Your task to perform on an android device: manage bookmarks in the chrome app Image 0: 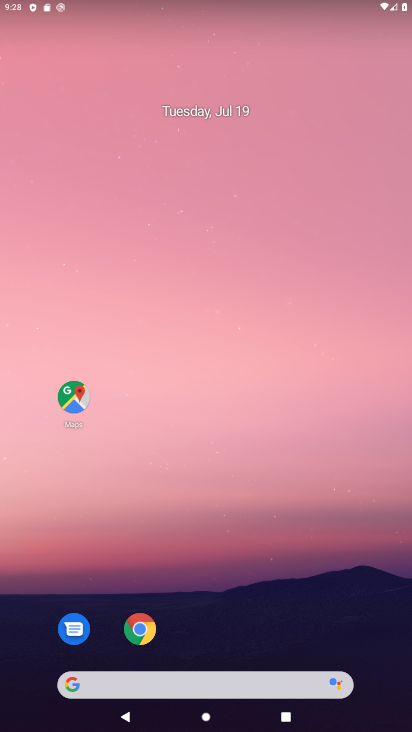
Step 0: press home button
Your task to perform on an android device: manage bookmarks in the chrome app Image 1: 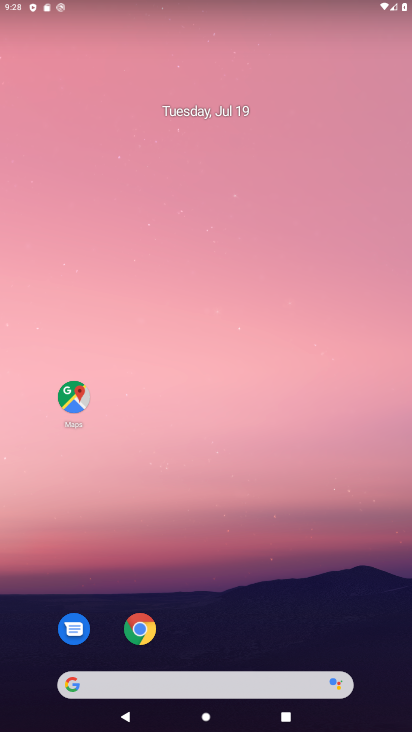
Step 1: press home button
Your task to perform on an android device: manage bookmarks in the chrome app Image 2: 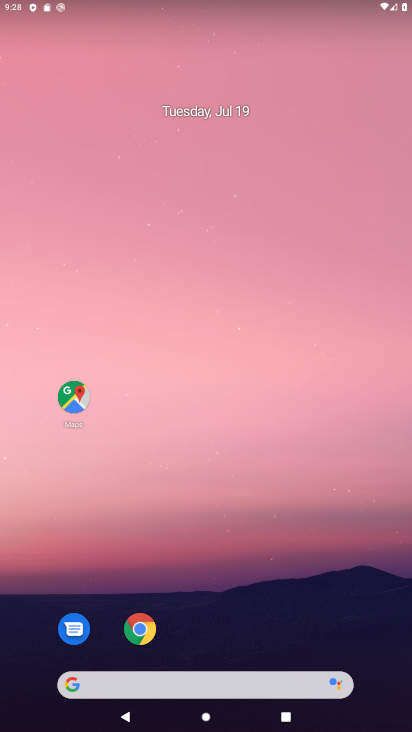
Step 2: click (135, 621)
Your task to perform on an android device: manage bookmarks in the chrome app Image 3: 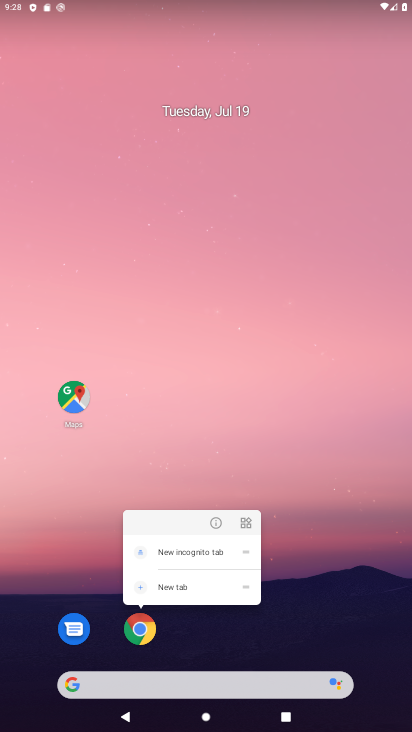
Step 3: click (142, 627)
Your task to perform on an android device: manage bookmarks in the chrome app Image 4: 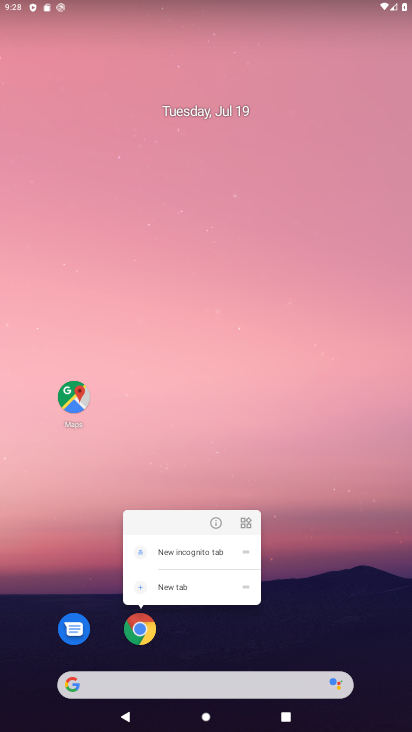
Step 4: click (142, 627)
Your task to perform on an android device: manage bookmarks in the chrome app Image 5: 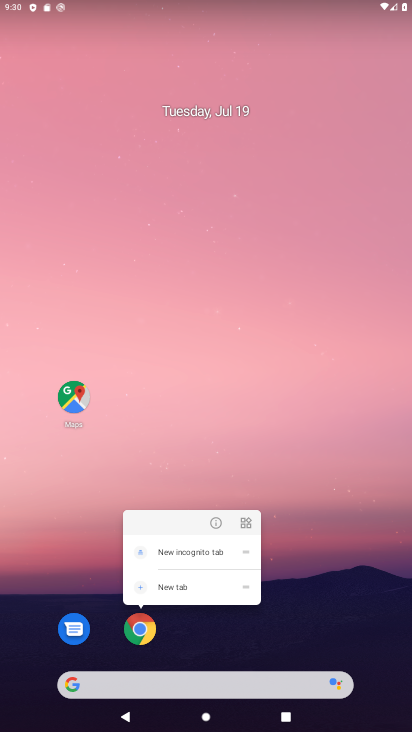
Step 5: click (132, 630)
Your task to perform on an android device: manage bookmarks in the chrome app Image 6: 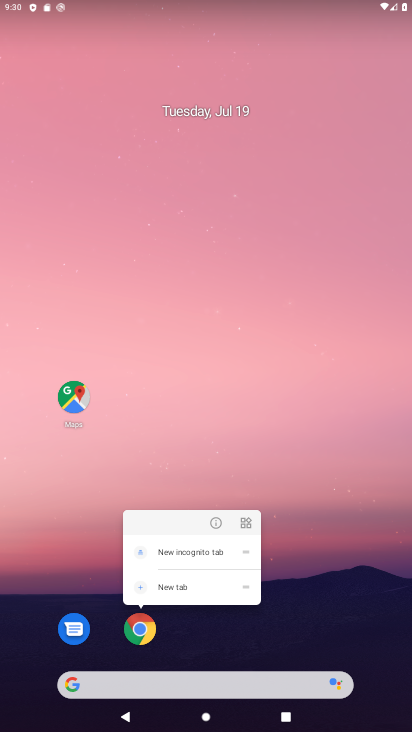
Step 6: click (132, 630)
Your task to perform on an android device: manage bookmarks in the chrome app Image 7: 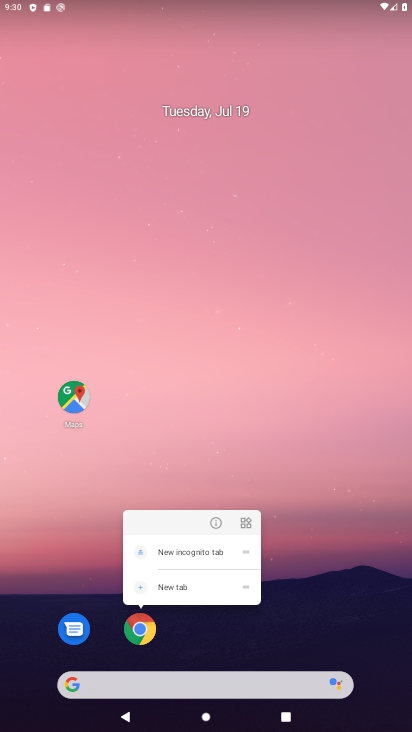
Step 7: click (145, 637)
Your task to perform on an android device: manage bookmarks in the chrome app Image 8: 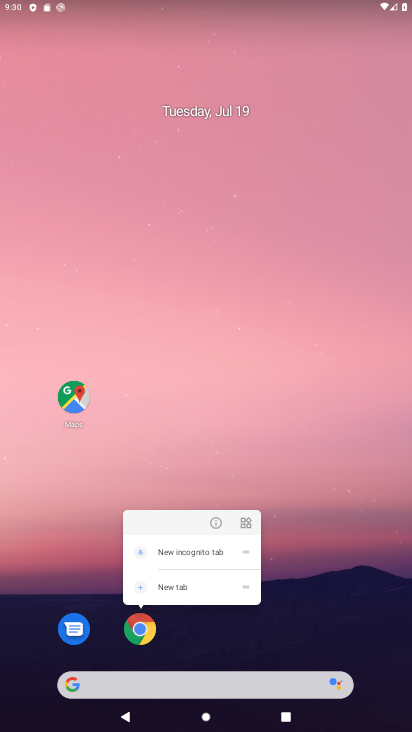
Step 8: click (136, 632)
Your task to perform on an android device: manage bookmarks in the chrome app Image 9: 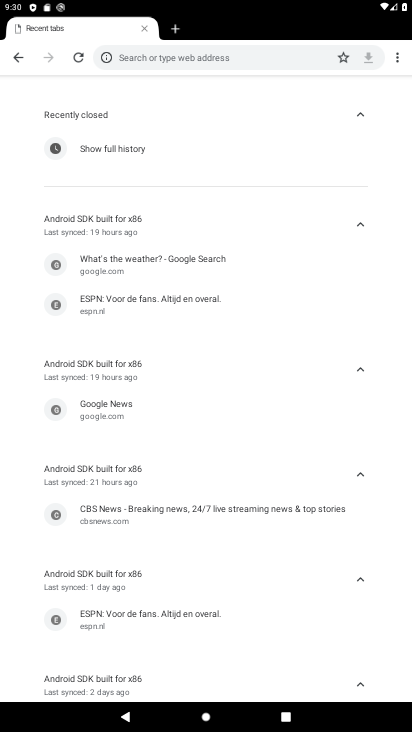
Step 9: click (399, 62)
Your task to perform on an android device: manage bookmarks in the chrome app Image 10: 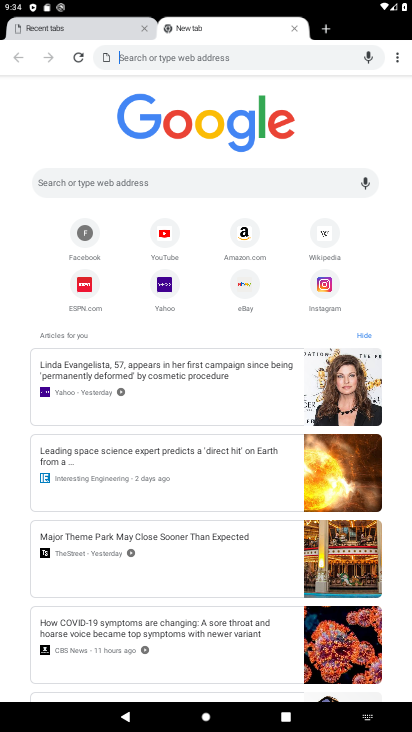
Step 10: press home button
Your task to perform on an android device: manage bookmarks in the chrome app Image 11: 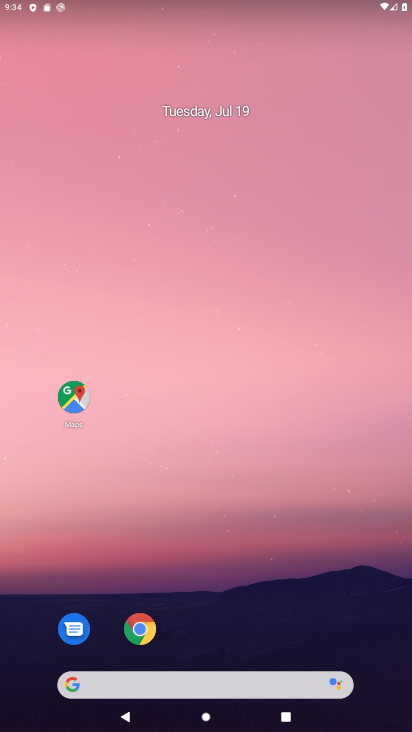
Step 11: click (144, 640)
Your task to perform on an android device: manage bookmarks in the chrome app Image 12: 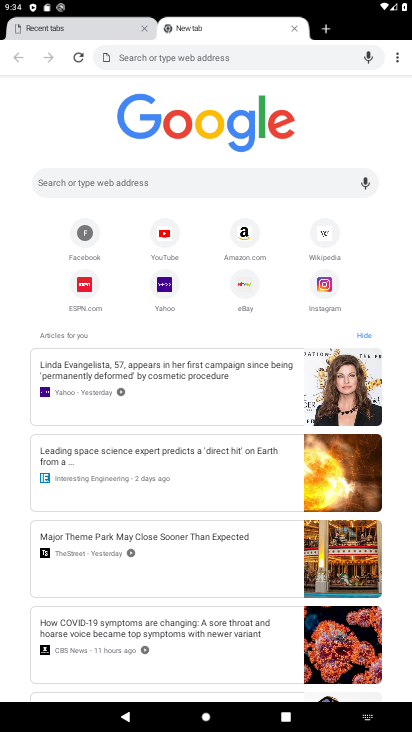
Step 12: click (399, 55)
Your task to perform on an android device: manage bookmarks in the chrome app Image 13: 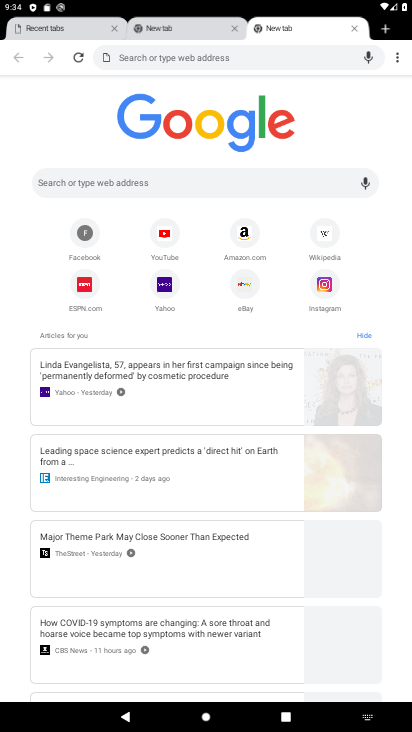
Step 13: drag from (399, 55) to (318, 116)
Your task to perform on an android device: manage bookmarks in the chrome app Image 14: 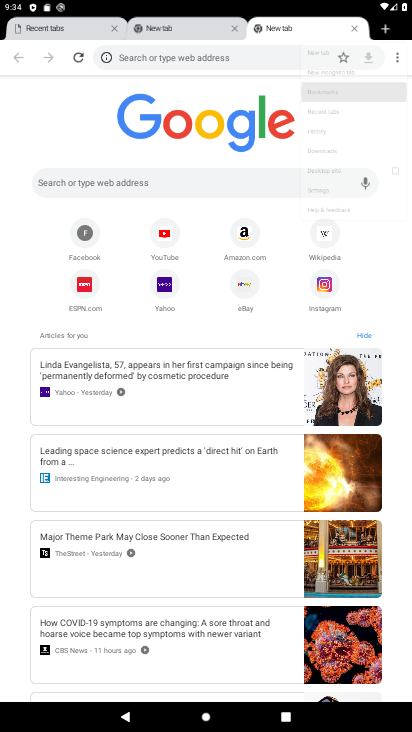
Step 14: click (316, 116)
Your task to perform on an android device: manage bookmarks in the chrome app Image 15: 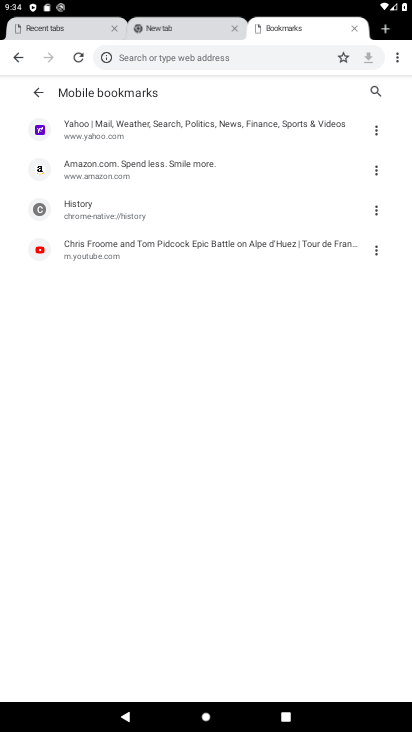
Step 15: task complete